Your task to perform on an android device: turn on sleep mode Image 0: 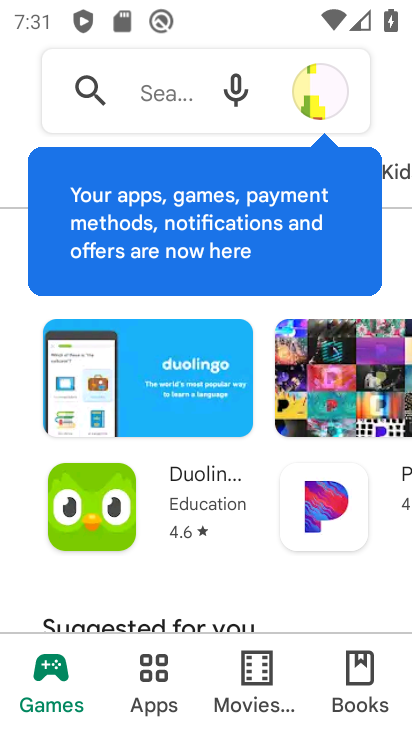
Step 0: drag from (233, 4) to (184, 492)
Your task to perform on an android device: turn on sleep mode Image 1: 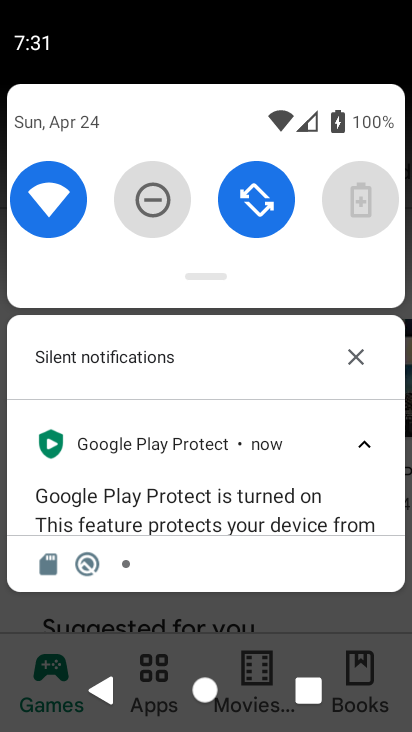
Step 1: drag from (212, 105) to (193, 480)
Your task to perform on an android device: turn on sleep mode Image 2: 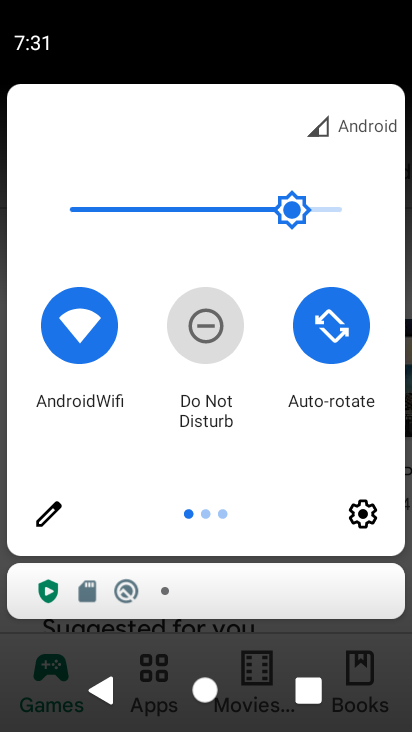
Step 2: click (370, 523)
Your task to perform on an android device: turn on sleep mode Image 3: 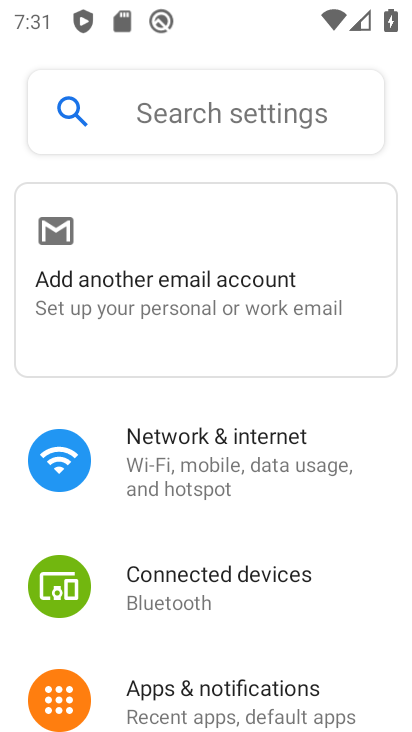
Step 3: task complete